Your task to perform on an android device: Find coffee shops on Maps Image 0: 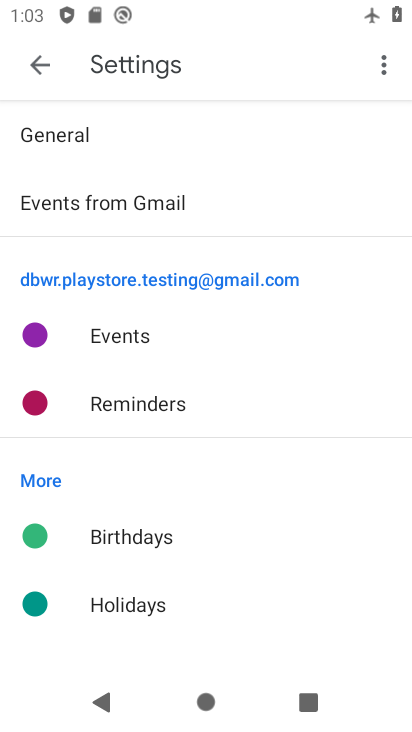
Step 0: press home button
Your task to perform on an android device: Find coffee shops on Maps Image 1: 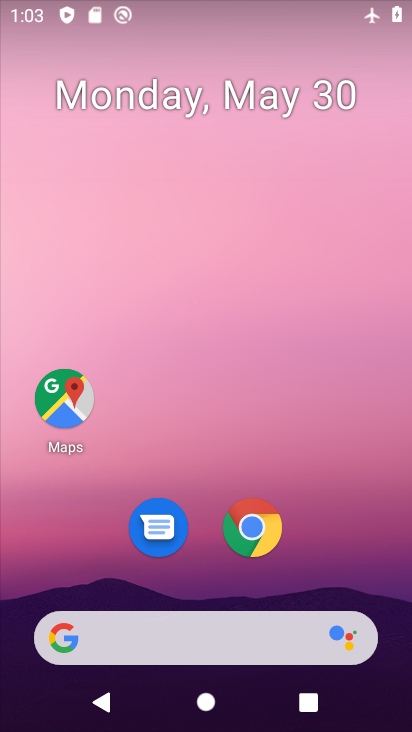
Step 1: click (71, 405)
Your task to perform on an android device: Find coffee shops on Maps Image 2: 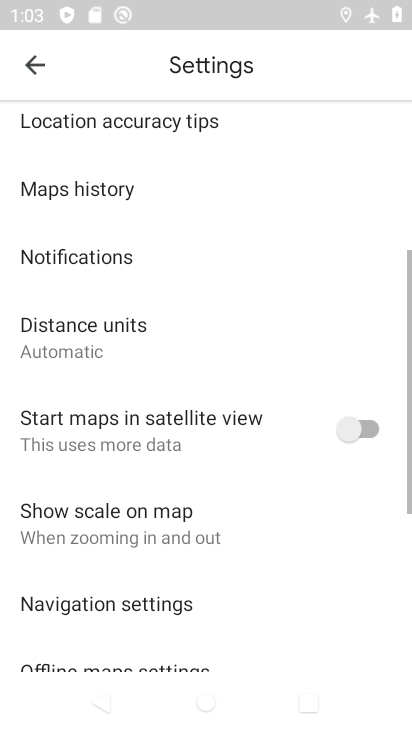
Step 2: click (34, 76)
Your task to perform on an android device: Find coffee shops on Maps Image 3: 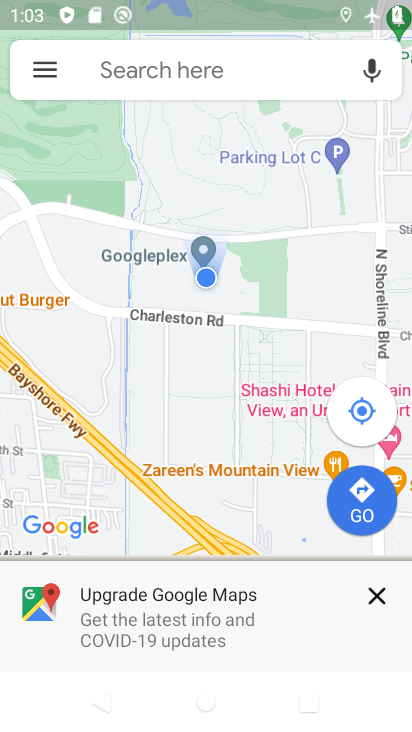
Step 3: click (121, 63)
Your task to perform on an android device: Find coffee shops on Maps Image 4: 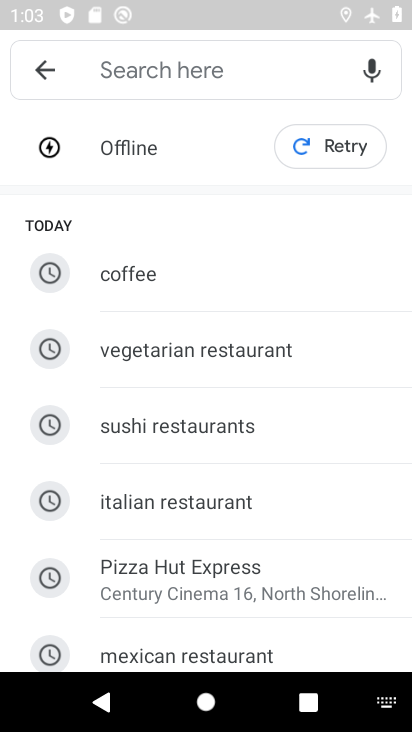
Step 4: type "coffee shops"
Your task to perform on an android device: Find coffee shops on Maps Image 5: 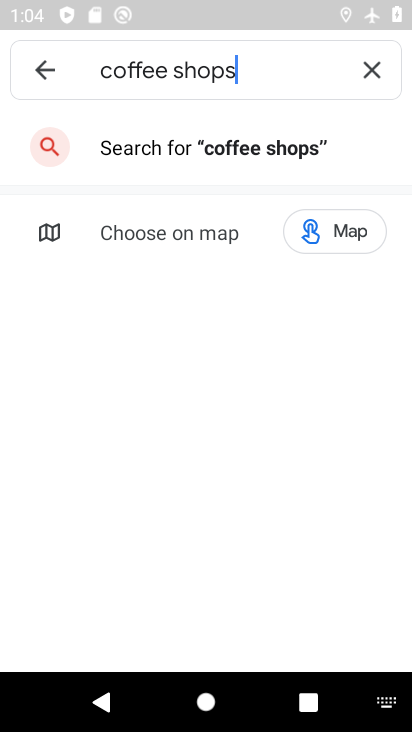
Step 5: click (332, 119)
Your task to perform on an android device: Find coffee shops on Maps Image 6: 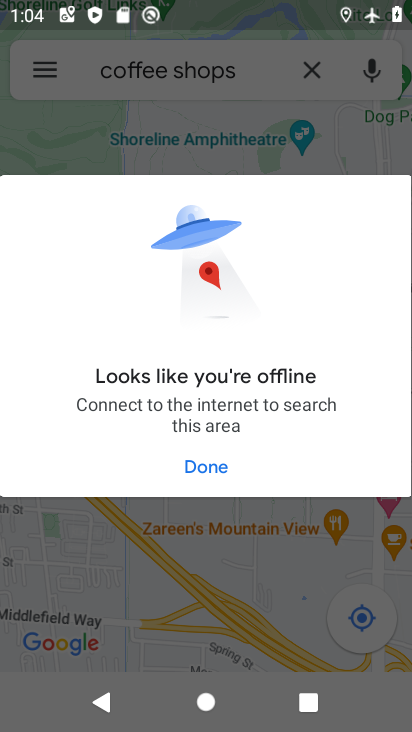
Step 6: task complete